Your task to perform on an android device: Is it going to rain this weekend? Image 0: 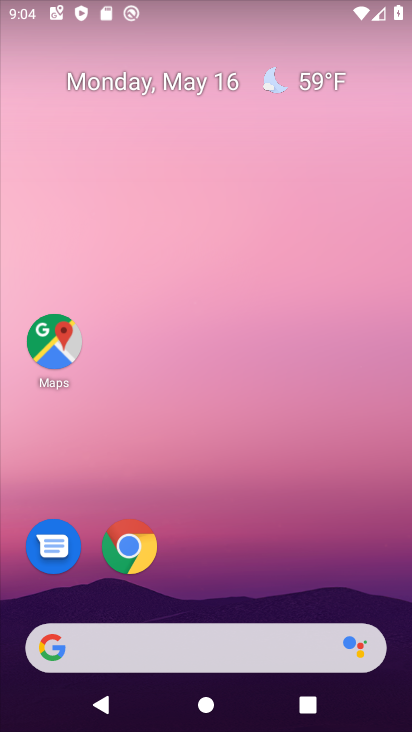
Step 0: drag from (369, 531) to (397, 76)
Your task to perform on an android device: Is it going to rain this weekend? Image 1: 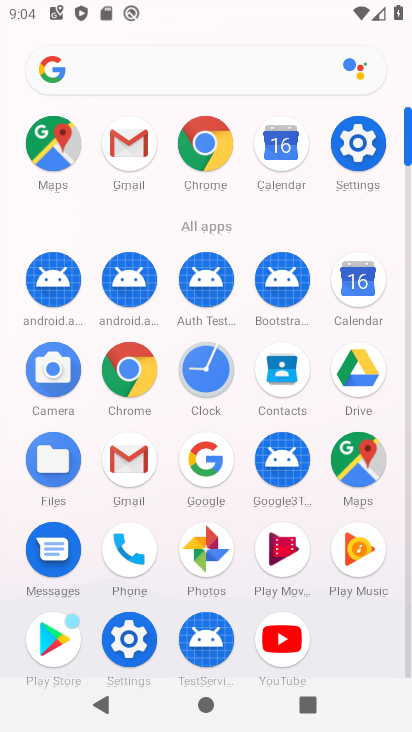
Step 1: press home button
Your task to perform on an android device: Is it going to rain this weekend? Image 2: 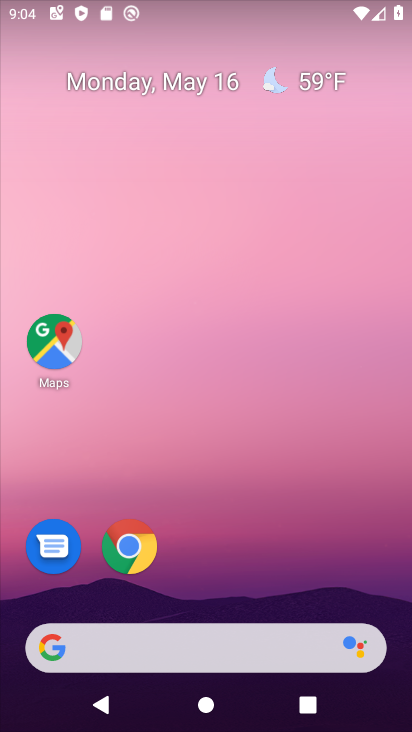
Step 2: click (332, 79)
Your task to perform on an android device: Is it going to rain this weekend? Image 3: 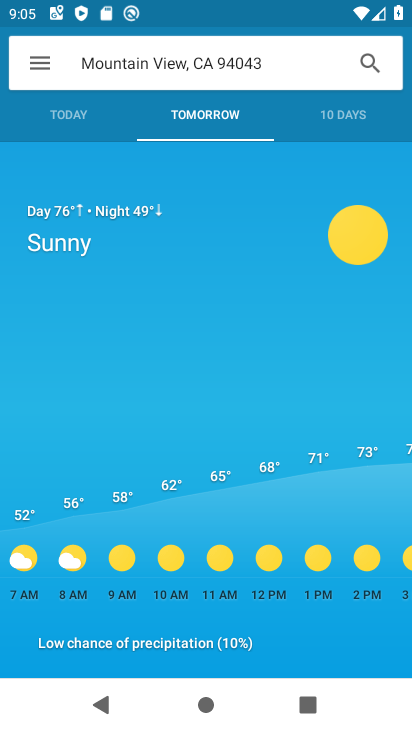
Step 3: click (342, 131)
Your task to perform on an android device: Is it going to rain this weekend? Image 4: 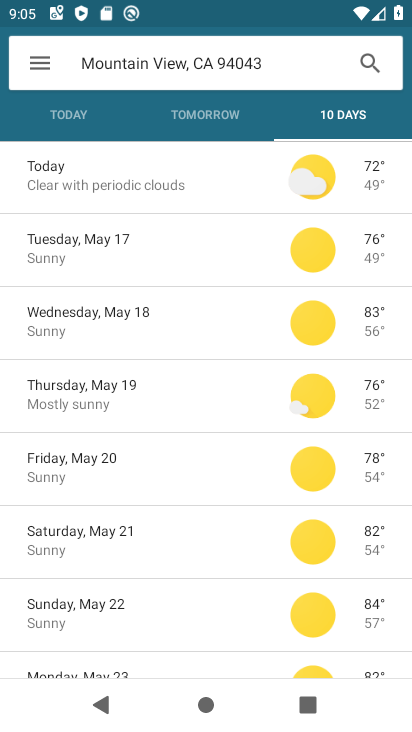
Step 4: task complete